Your task to perform on an android device: toggle priority inbox in the gmail app Image 0: 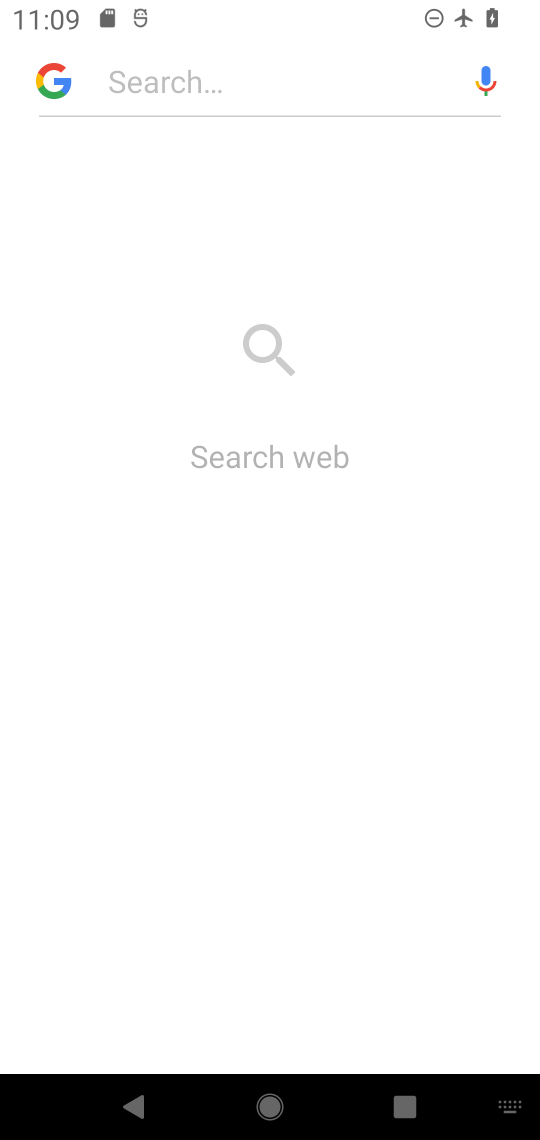
Step 0: press home button
Your task to perform on an android device: toggle priority inbox in the gmail app Image 1: 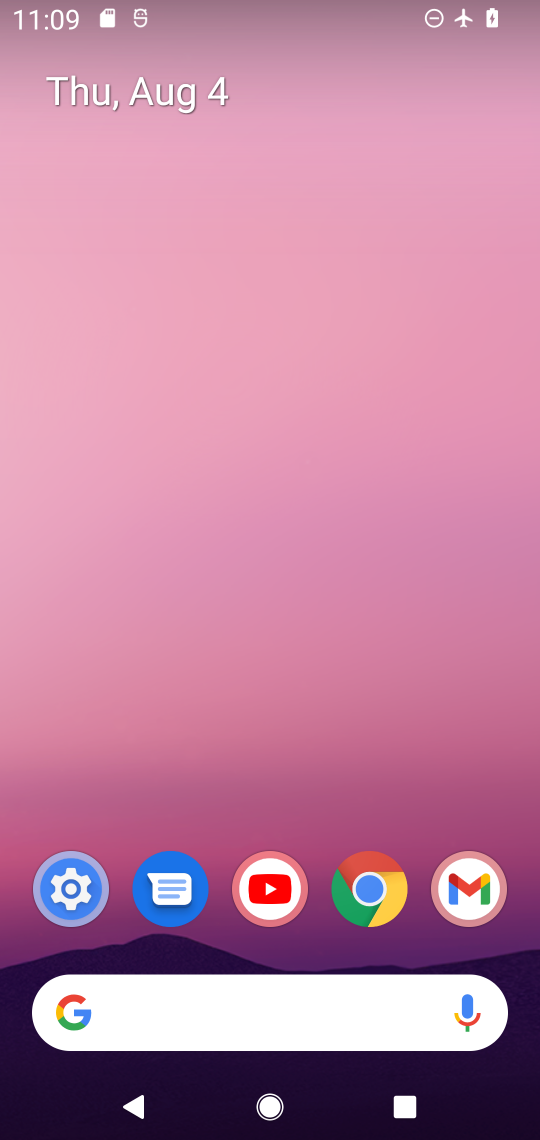
Step 1: drag from (417, 728) to (392, 138)
Your task to perform on an android device: toggle priority inbox in the gmail app Image 2: 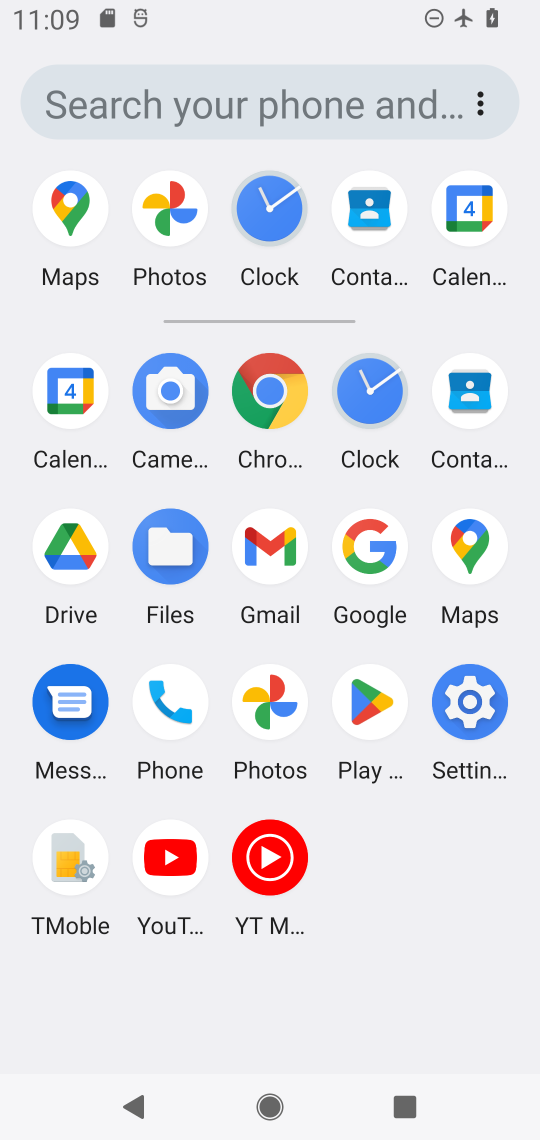
Step 2: click (276, 560)
Your task to perform on an android device: toggle priority inbox in the gmail app Image 3: 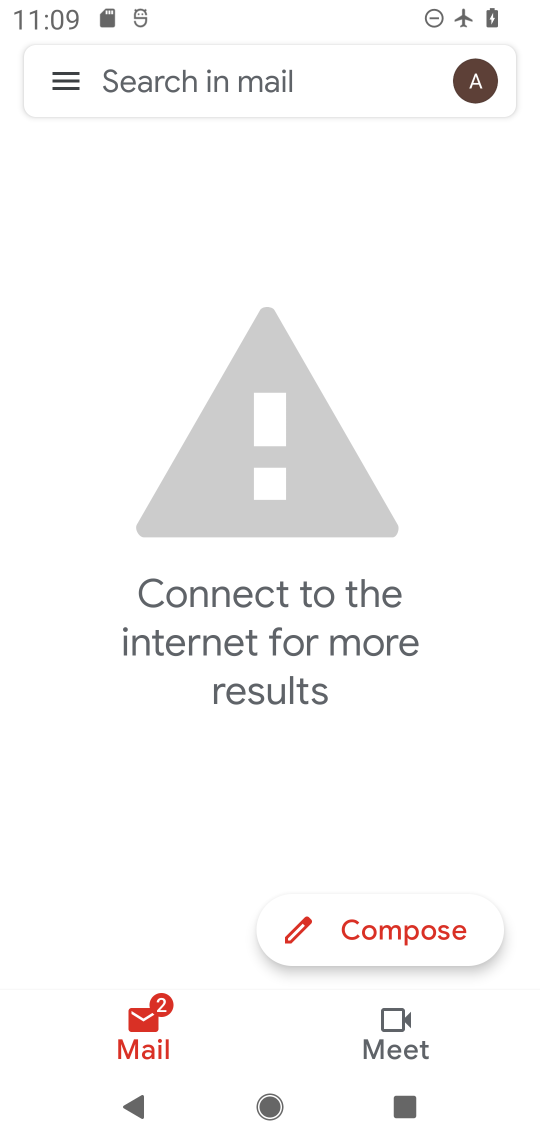
Step 3: click (68, 80)
Your task to perform on an android device: toggle priority inbox in the gmail app Image 4: 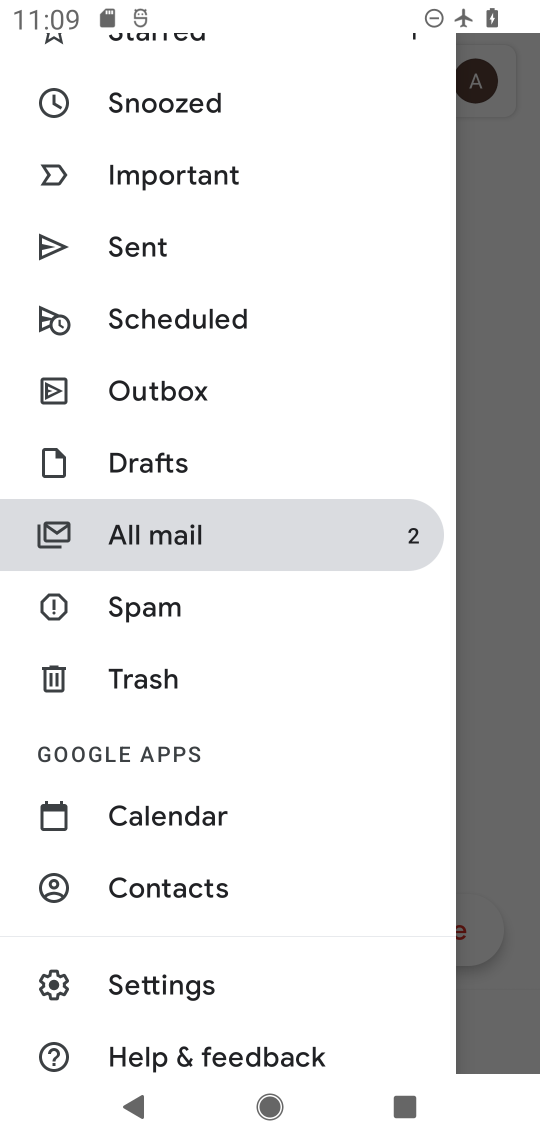
Step 4: drag from (289, 743) to (304, 453)
Your task to perform on an android device: toggle priority inbox in the gmail app Image 5: 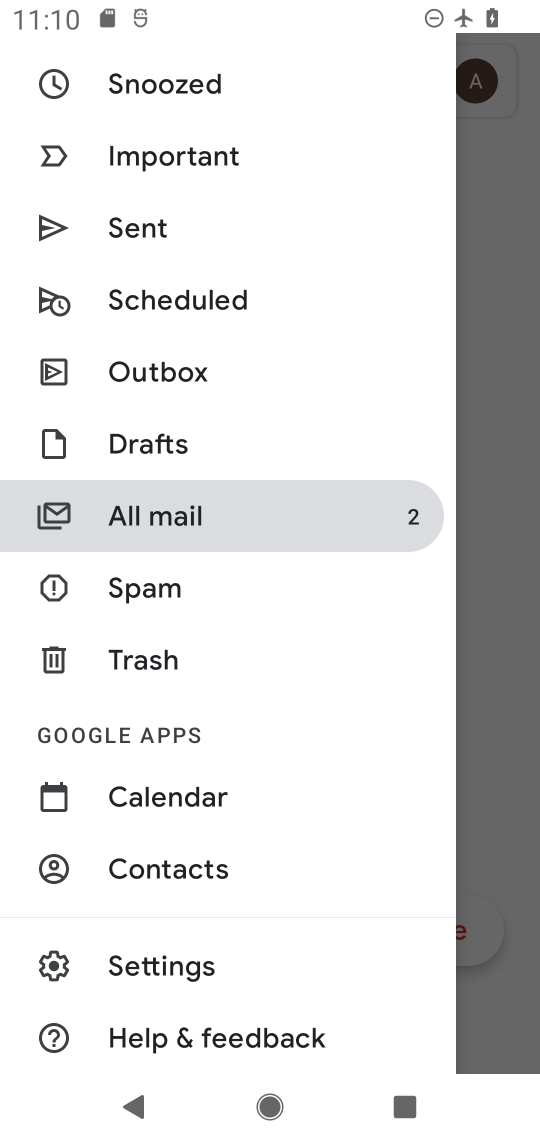
Step 5: click (195, 970)
Your task to perform on an android device: toggle priority inbox in the gmail app Image 6: 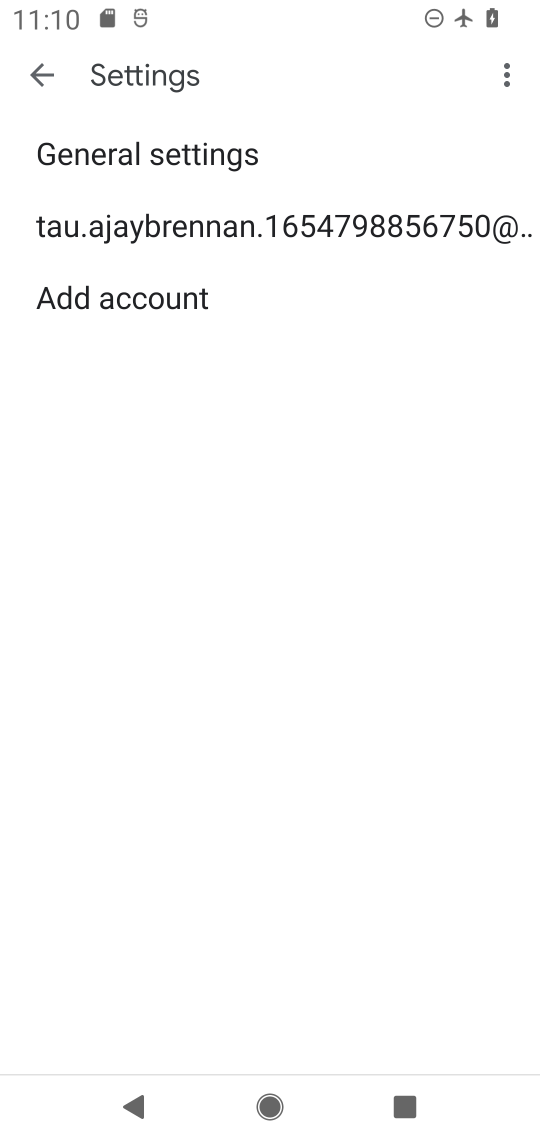
Step 6: drag from (331, 376) to (331, 626)
Your task to perform on an android device: toggle priority inbox in the gmail app Image 7: 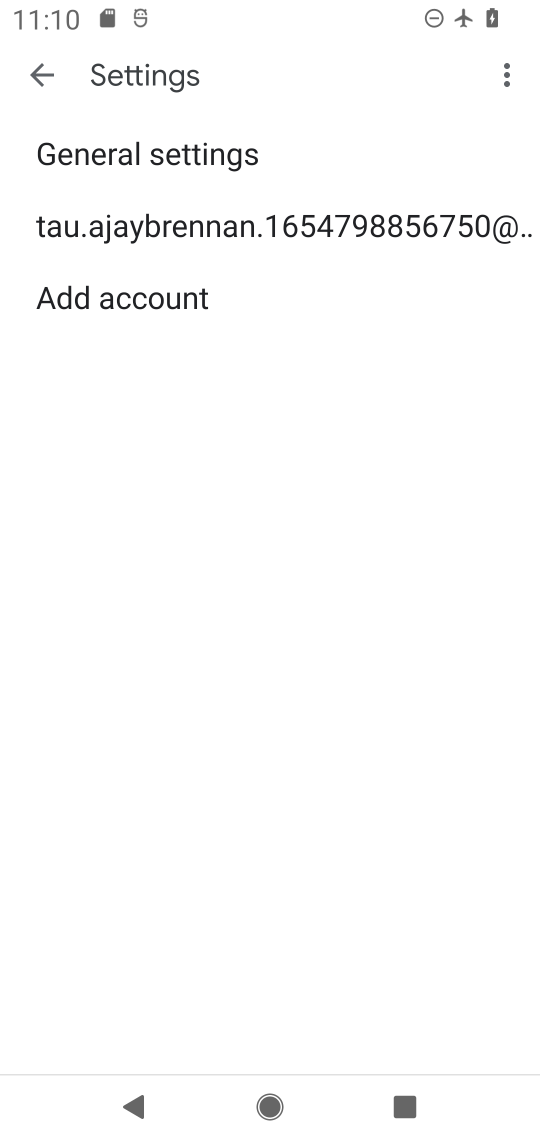
Step 7: click (269, 230)
Your task to perform on an android device: toggle priority inbox in the gmail app Image 8: 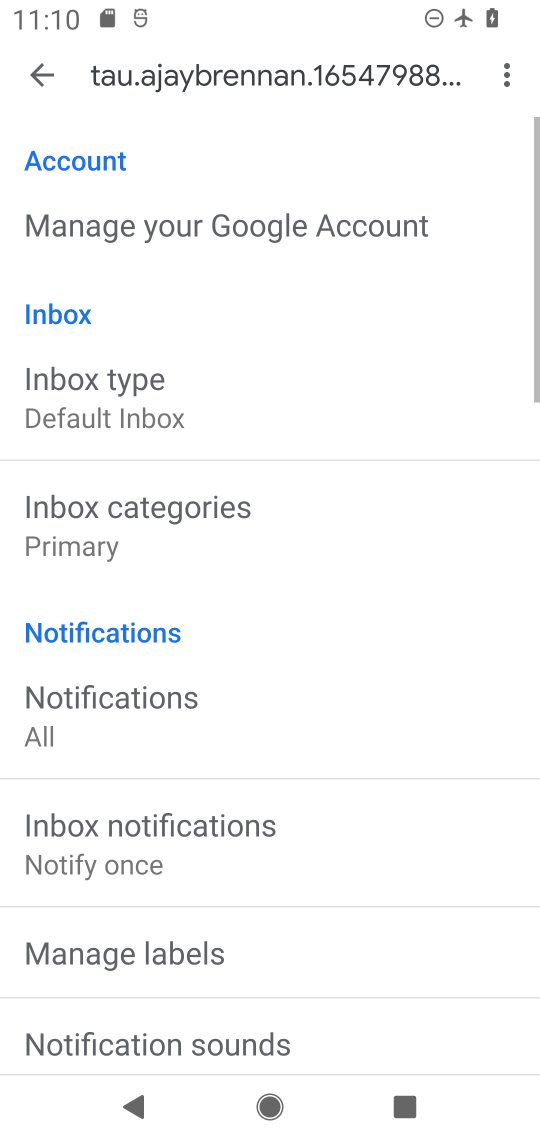
Step 8: drag from (402, 877) to (406, 508)
Your task to perform on an android device: toggle priority inbox in the gmail app Image 9: 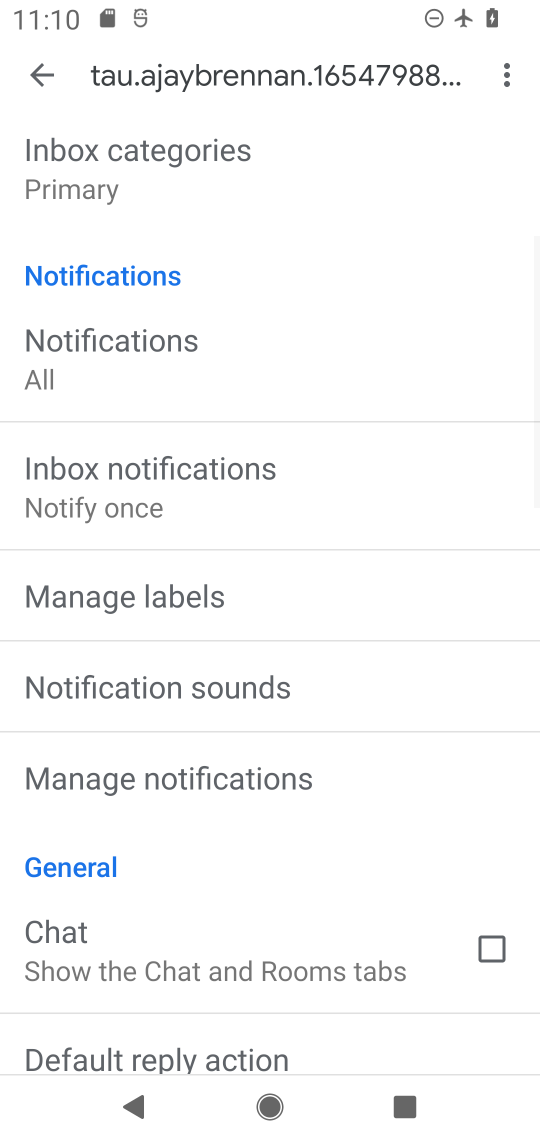
Step 9: drag from (385, 824) to (387, 453)
Your task to perform on an android device: toggle priority inbox in the gmail app Image 10: 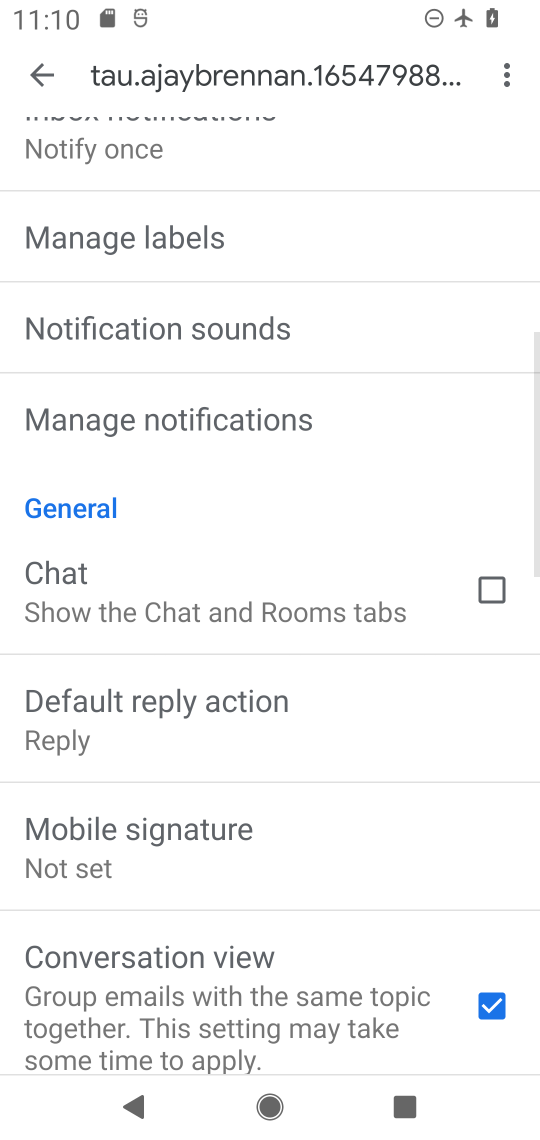
Step 10: drag from (385, 859) to (401, 456)
Your task to perform on an android device: toggle priority inbox in the gmail app Image 11: 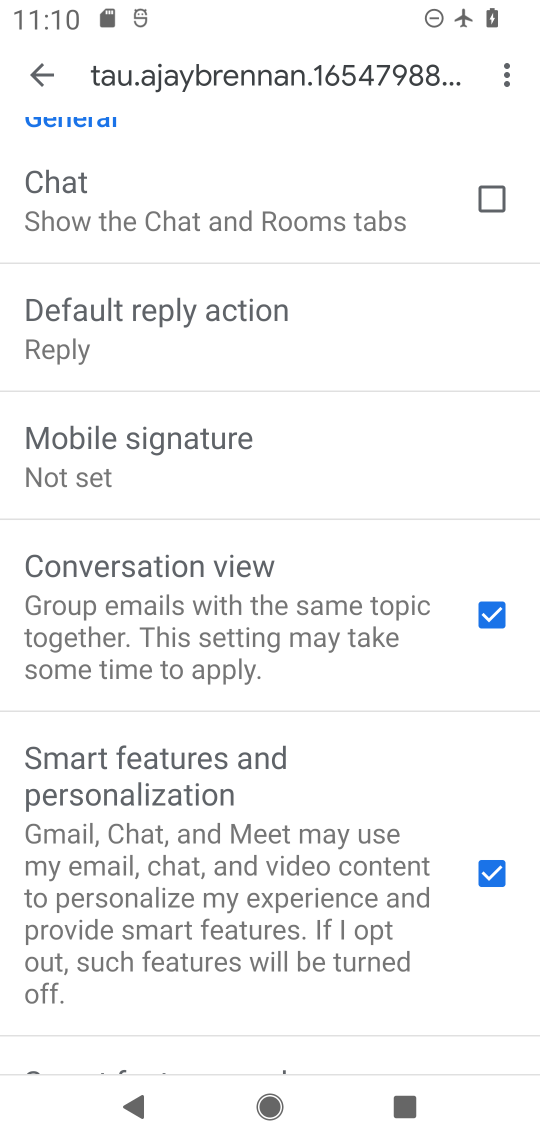
Step 11: drag from (342, 760) to (357, 390)
Your task to perform on an android device: toggle priority inbox in the gmail app Image 12: 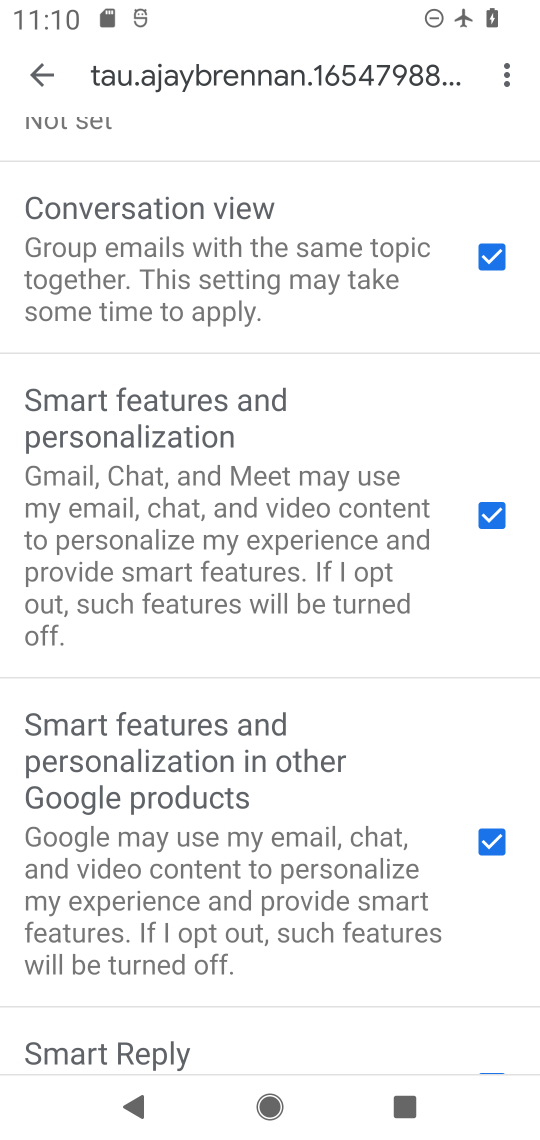
Step 12: drag from (348, 304) to (346, 667)
Your task to perform on an android device: toggle priority inbox in the gmail app Image 13: 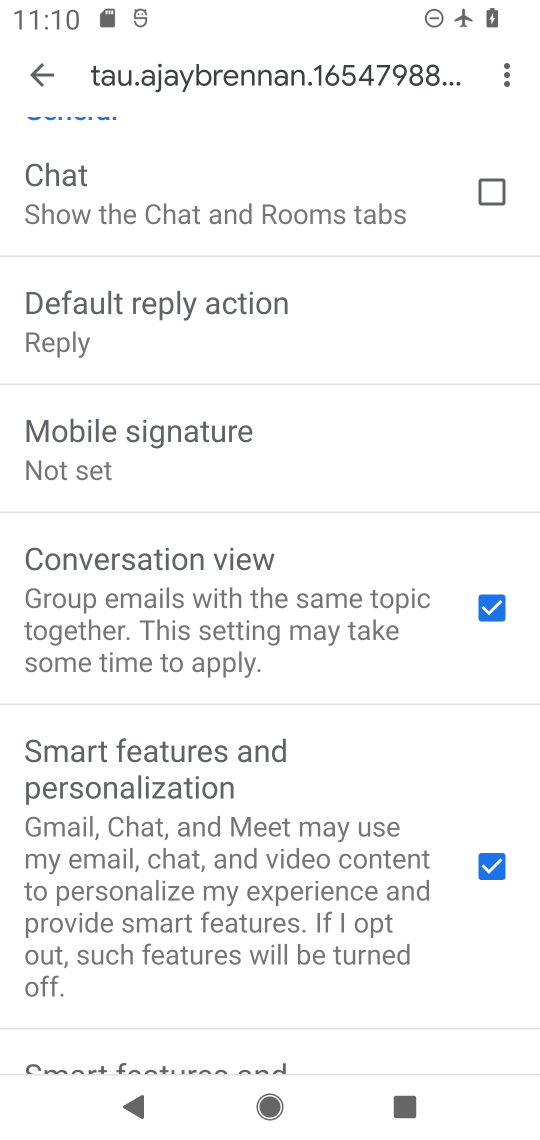
Step 13: drag from (359, 241) to (352, 672)
Your task to perform on an android device: toggle priority inbox in the gmail app Image 14: 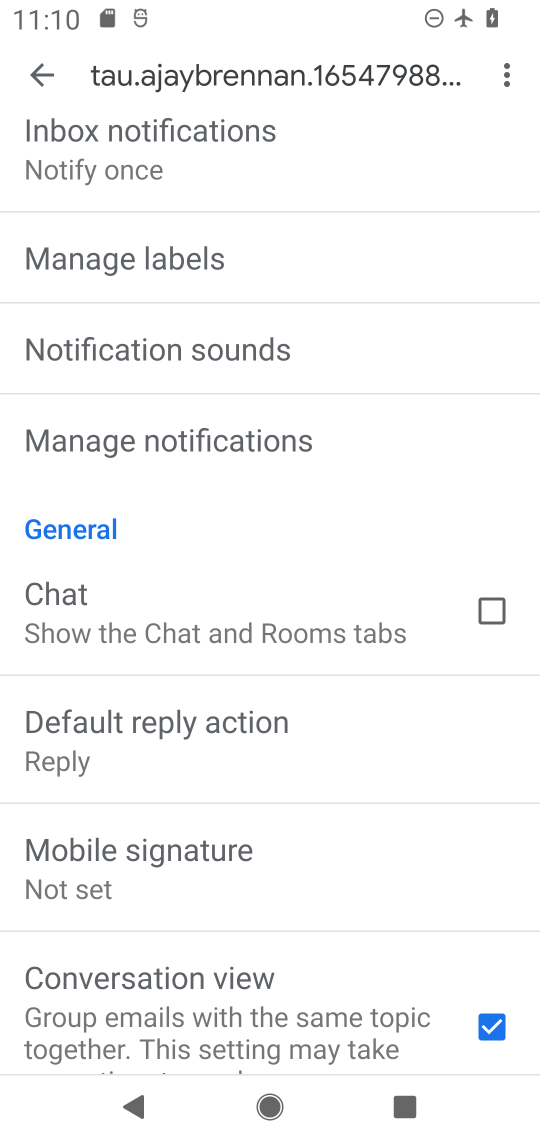
Step 14: drag from (371, 238) to (371, 615)
Your task to perform on an android device: toggle priority inbox in the gmail app Image 15: 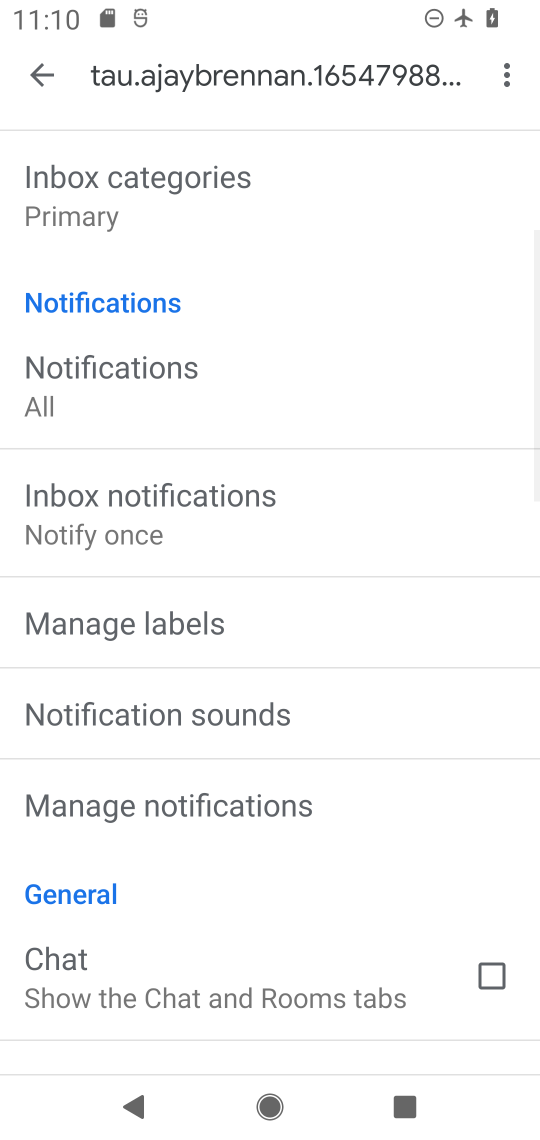
Step 15: drag from (353, 216) to (359, 593)
Your task to perform on an android device: toggle priority inbox in the gmail app Image 16: 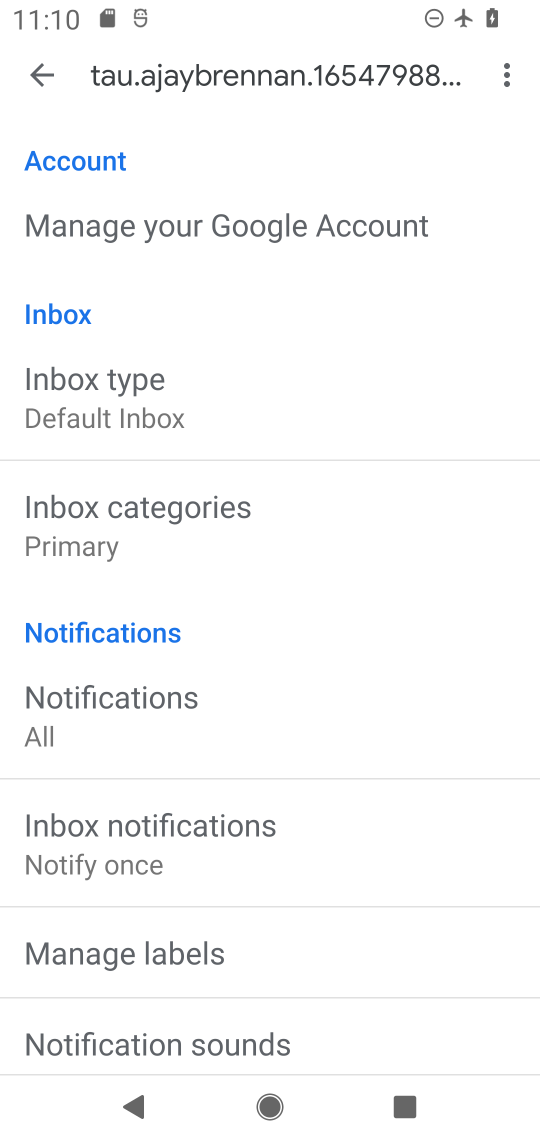
Step 16: drag from (396, 295) to (387, 652)
Your task to perform on an android device: toggle priority inbox in the gmail app Image 17: 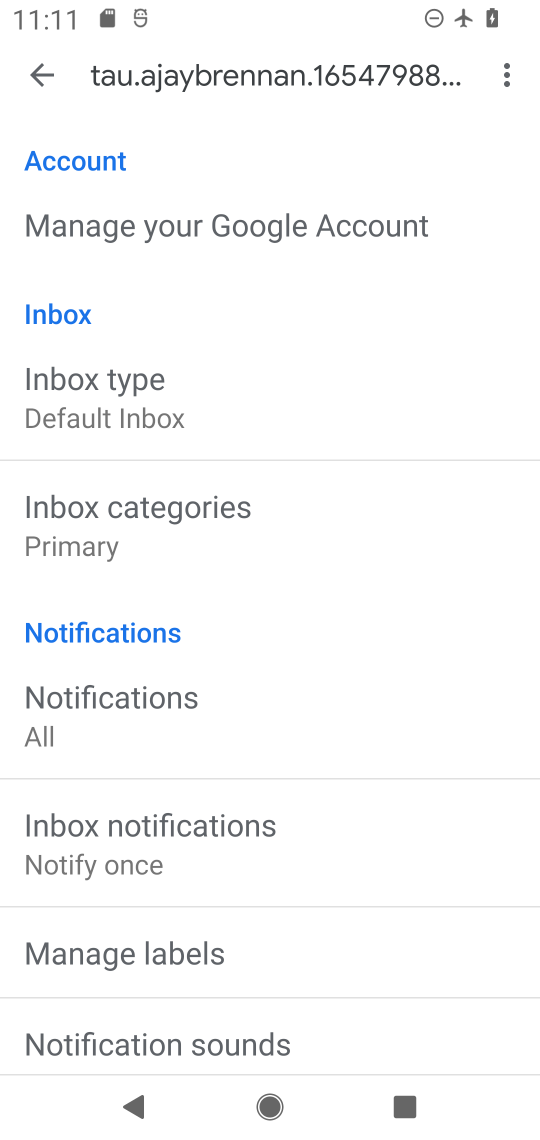
Step 17: click (148, 378)
Your task to perform on an android device: toggle priority inbox in the gmail app Image 18: 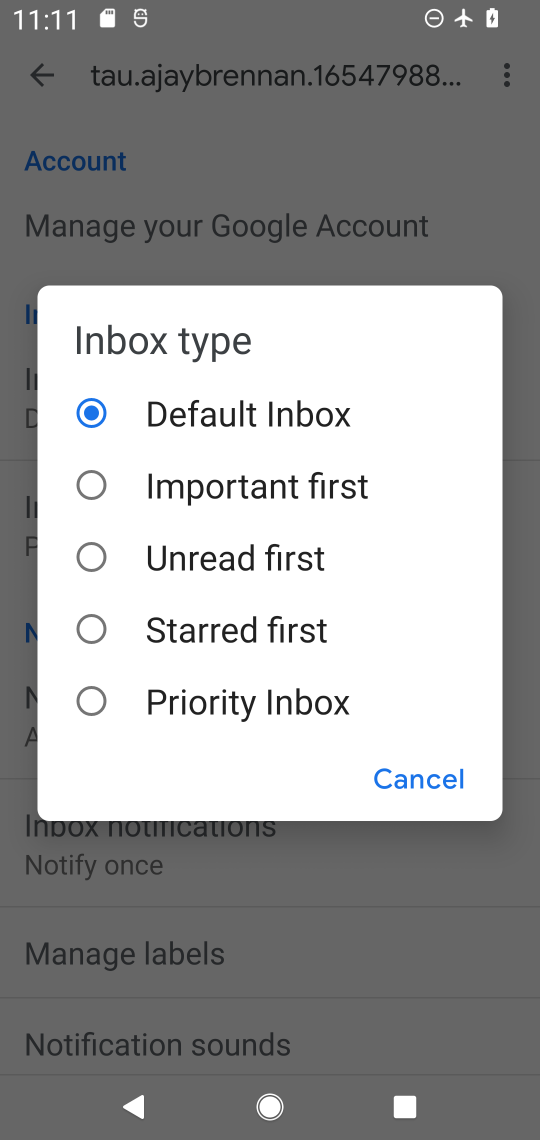
Step 18: click (231, 705)
Your task to perform on an android device: toggle priority inbox in the gmail app Image 19: 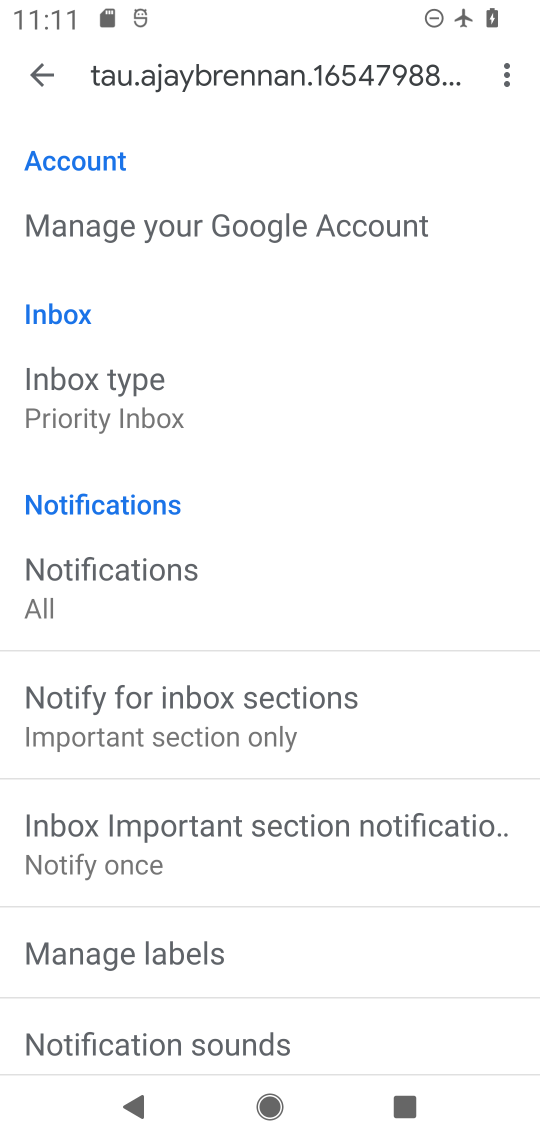
Step 19: task complete